Your task to perform on an android device: Open Maps and search for coffee Image 0: 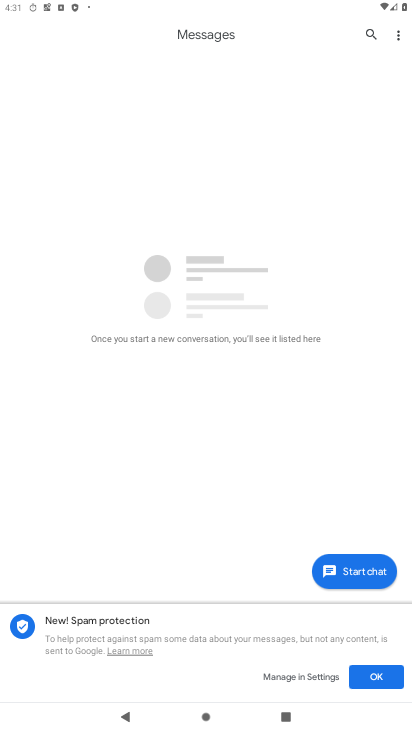
Step 0: press home button
Your task to perform on an android device: Open Maps and search for coffee Image 1: 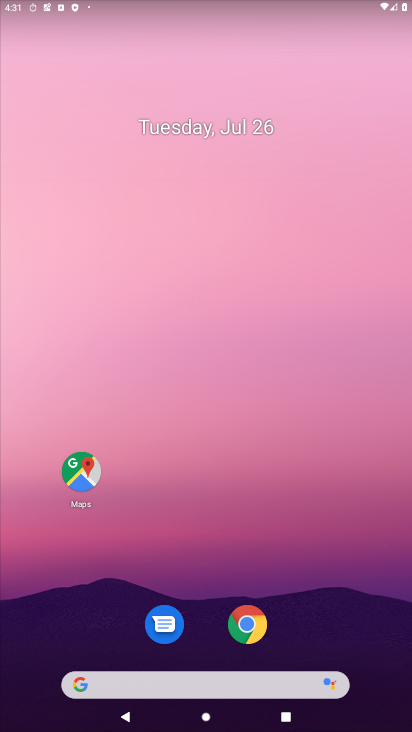
Step 1: drag from (297, 678) to (226, 19)
Your task to perform on an android device: Open Maps and search for coffee Image 2: 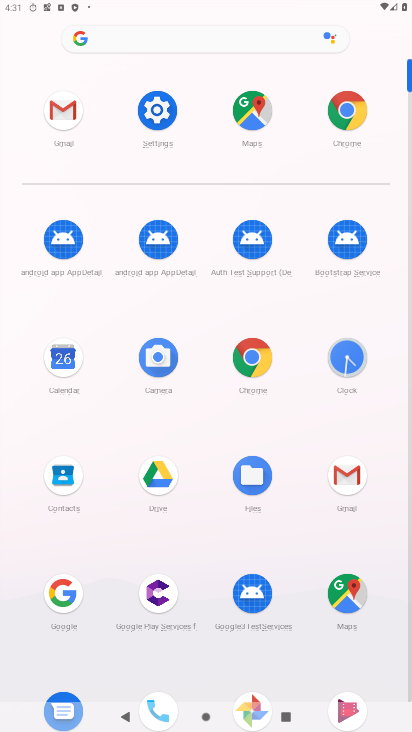
Step 2: click (348, 598)
Your task to perform on an android device: Open Maps and search for coffee Image 3: 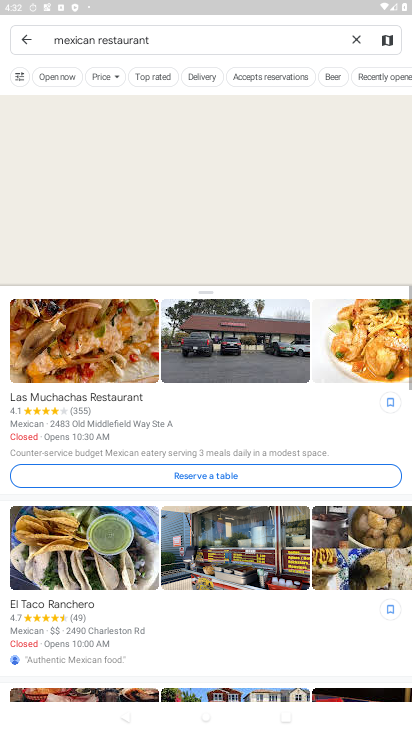
Step 3: press back button
Your task to perform on an android device: Open Maps and search for coffee Image 4: 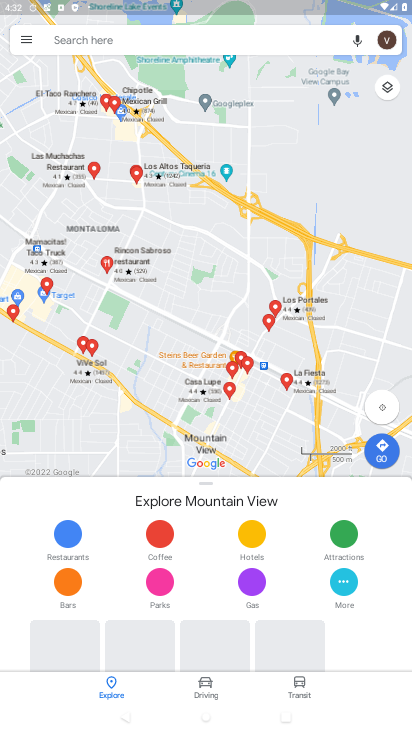
Step 4: press back button
Your task to perform on an android device: Open Maps and search for coffee Image 5: 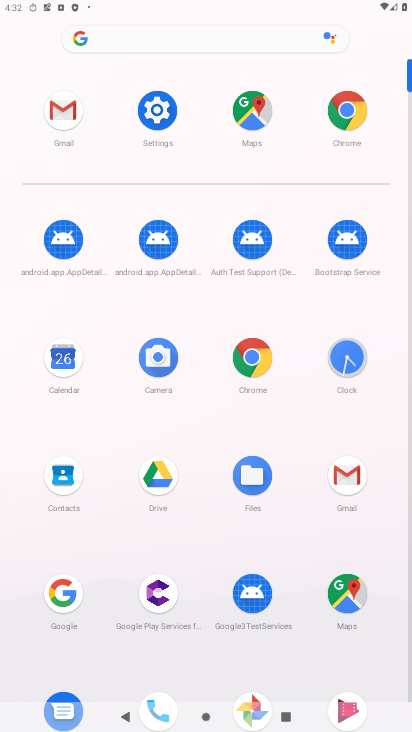
Step 5: click (336, 605)
Your task to perform on an android device: Open Maps and search for coffee Image 6: 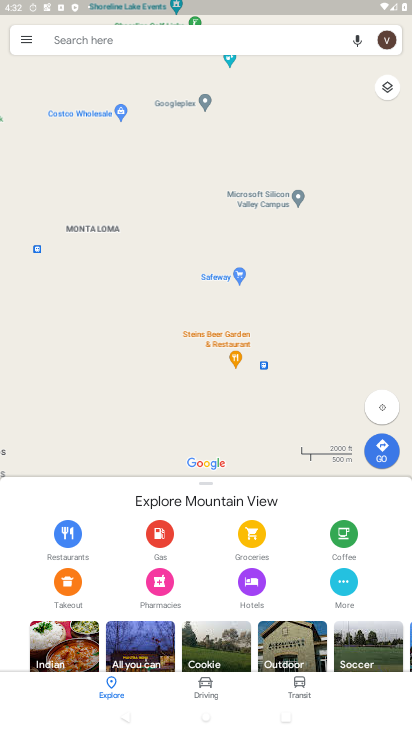
Step 6: click (280, 48)
Your task to perform on an android device: Open Maps and search for coffee Image 7: 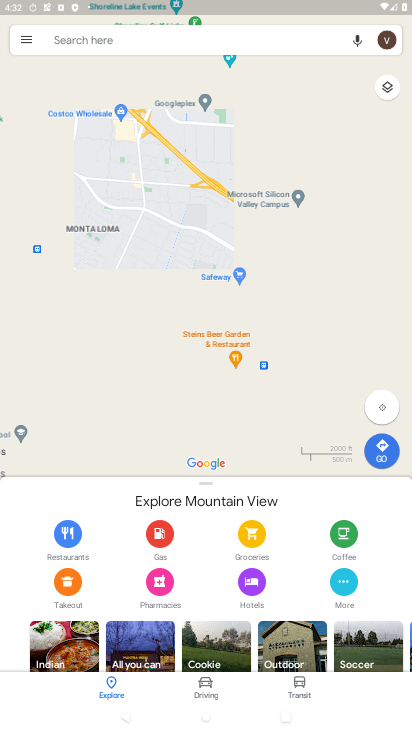
Step 7: click (280, 48)
Your task to perform on an android device: Open Maps and search for coffee Image 8: 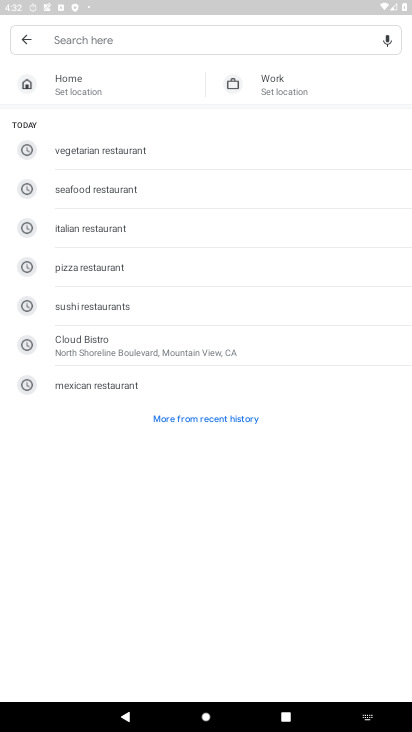
Step 8: type "coffee"
Your task to perform on an android device: Open Maps and search for coffee Image 9: 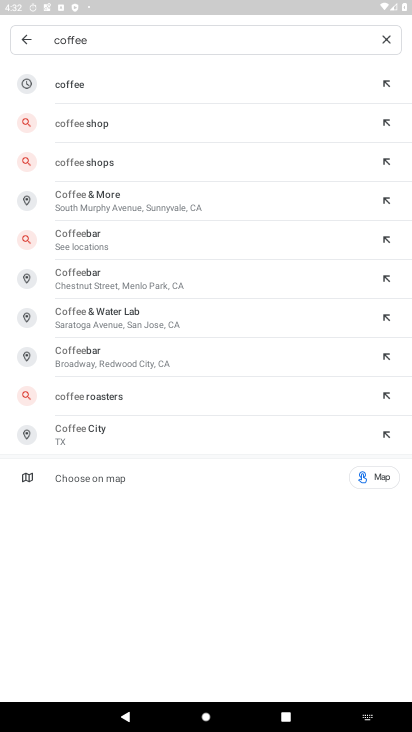
Step 9: click (90, 83)
Your task to perform on an android device: Open Maps and search for coffee Image 10: 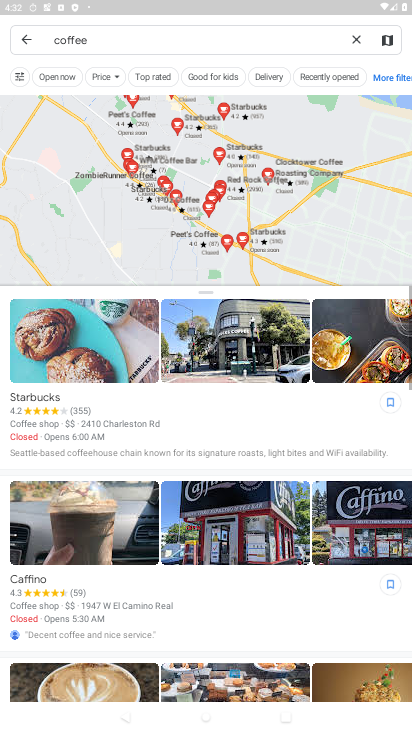
Step 10: task complete